Your task to perform on an android device: all mails in gmail Image 0: 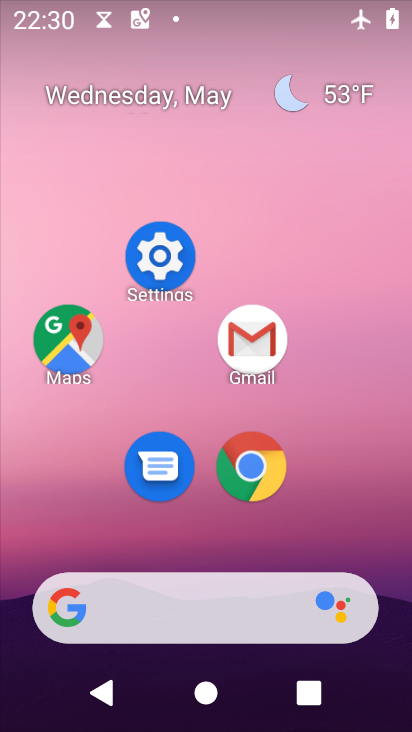
Step 0: drag from (203, 403) to (223, 152)
Your task to perform on an android device: all mails in gmail Image 1: 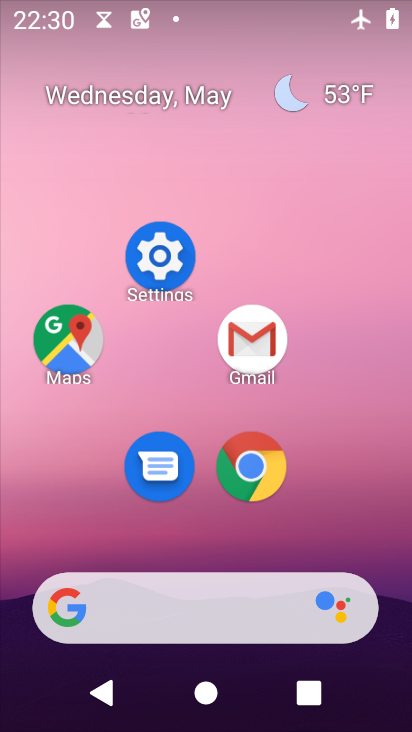
Step 1: drag from (193, 543) to (201, 326)
Your task to perform on an android device: all mails in gmail Image 2: 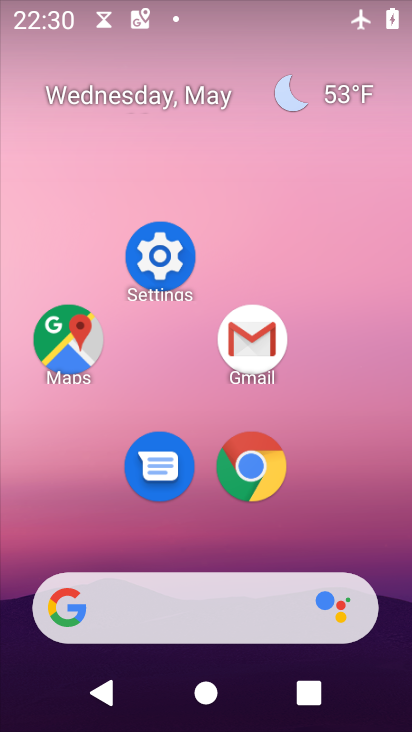
Step 2: drag from (195, 545) to (222, 291)
Your task to perform on an android device: all mails in gmail Image 3: 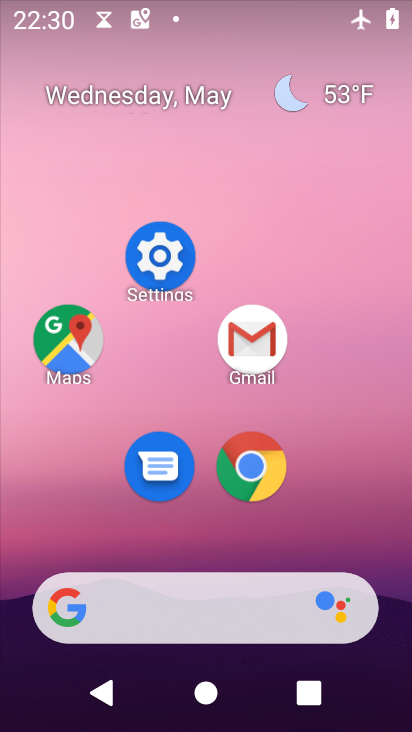
Step 3: drag from (189, 524) to (238, 179)
Your task to perform on an android device: all mails in gmail Image 4: 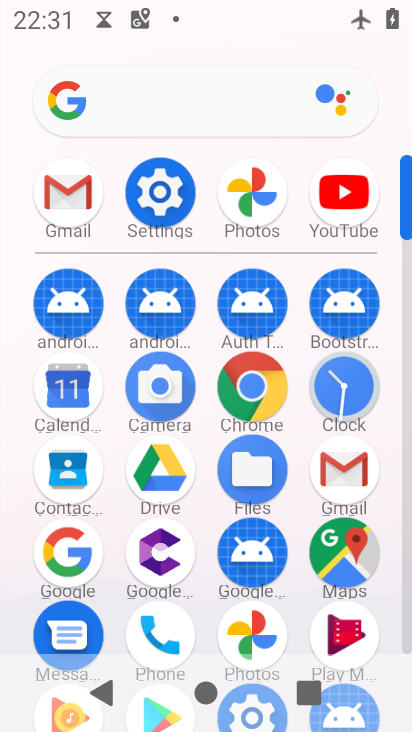
Step 4: click (351, 468)
Your task to perform on an android device: all mails in gmail Image 5: 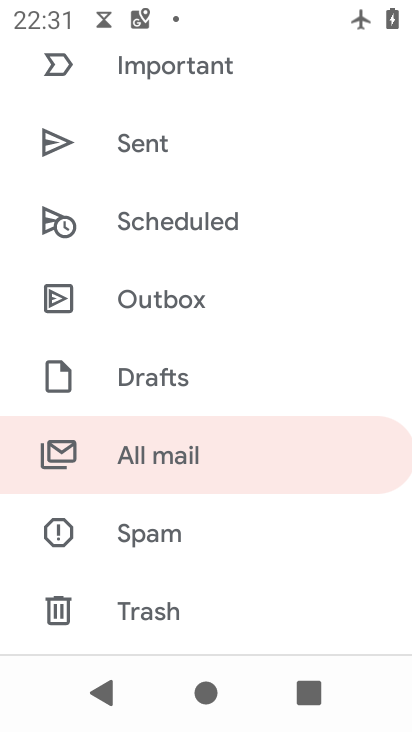
Step 5: click (203, 450)
Your task to perform on an android device: all mails in gmail Image 6: 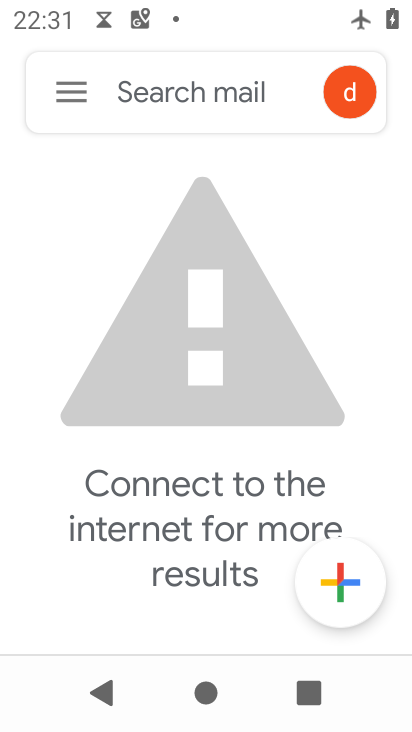
Step 6: drag from (211, 597) to (199, 292)
Your task to perform on an android device: all mails in gmail Image 7: 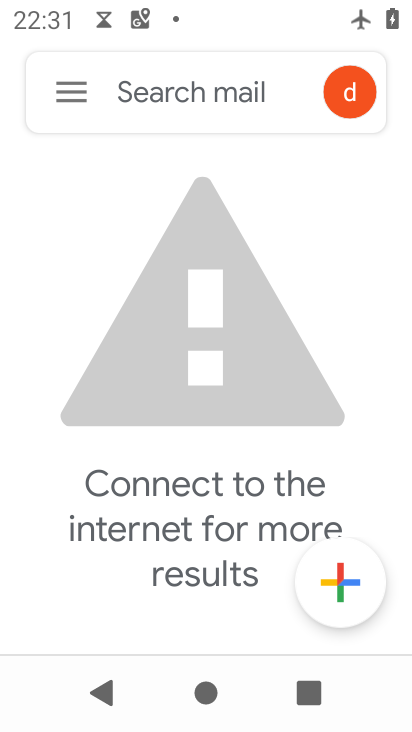
Step 7: click (71, 84)
Your task to perform on an android device: all mails in gmail Image 8: 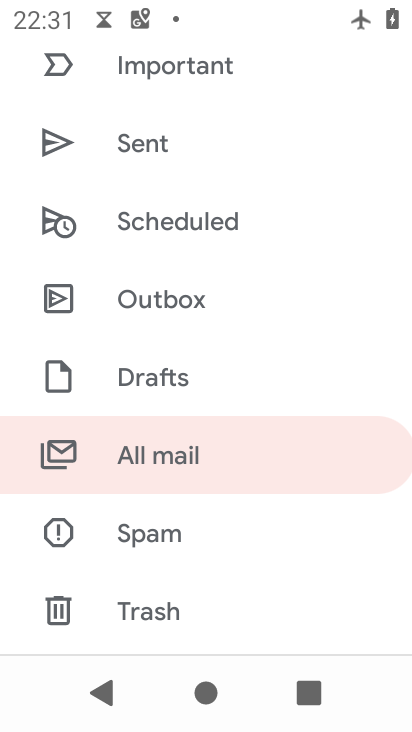
Step 8: task complete